Your task to perform on an android device: change alarm snooze length Image 0: 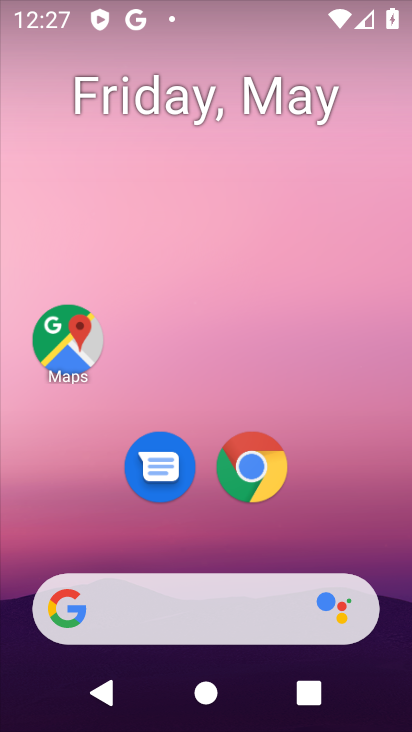
Step 0: drag from (347, 543) to (276, 10)
Your task to perform on an android device: change alarm snooze length Image 1: 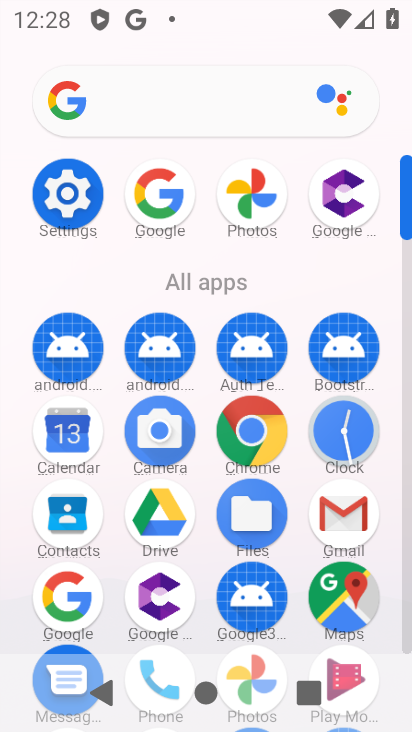
Step 1: click (343, 431)
Your task to perform on an android device: change alarm snooze length Image 2: 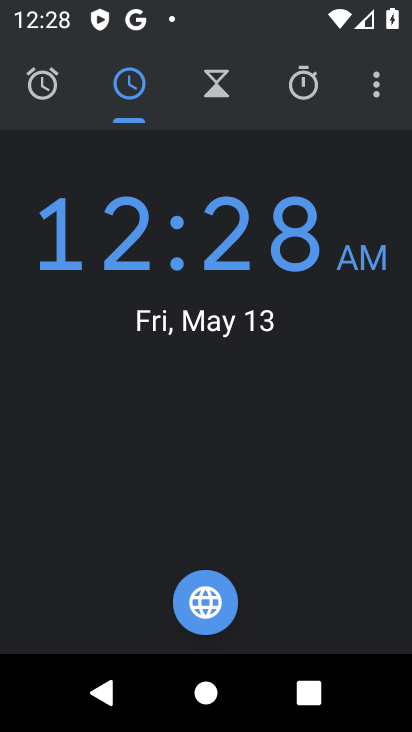
Step 2: click (376, 85)
Your task to perform on an android device: change alarm snooze length Image 3: 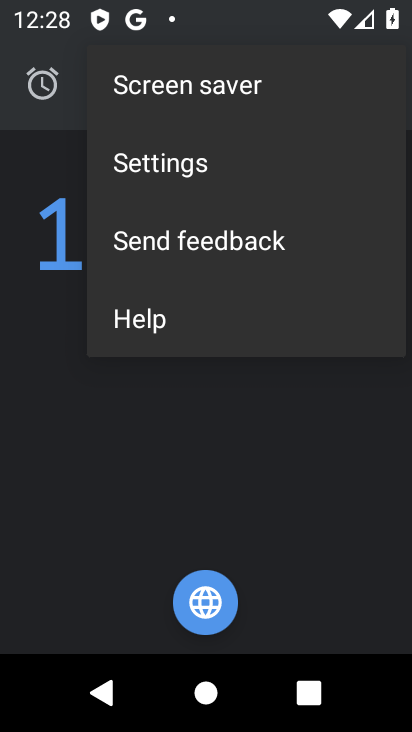
Step 3: click (180, 169)
Your task to perform on an android device: change alarm snooze length Image 4: 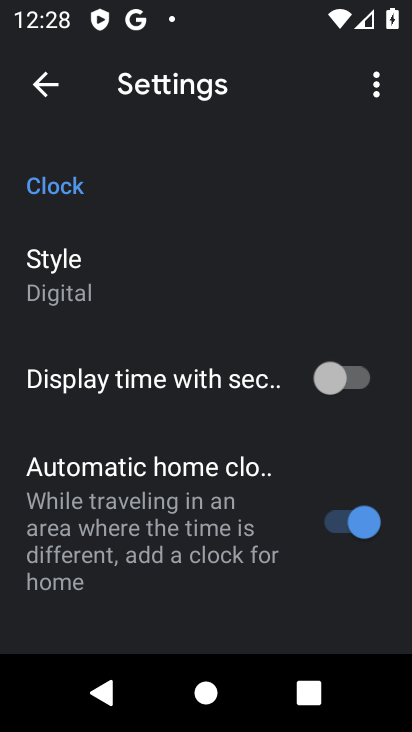
Step 4: drag from (208, 335) to (197, 234)
Your task to perform on an android device: change alarm snooze length Image 5: 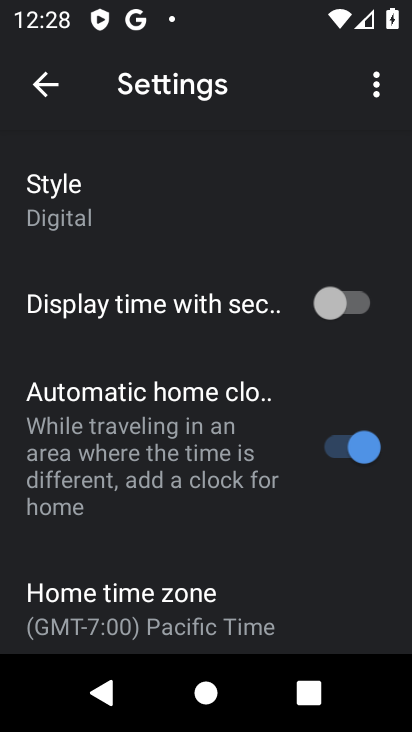
Step 5: drag from (152, 498) to (210, 342)
Your task to perform on an android device: change alarm snooze length Image 6: 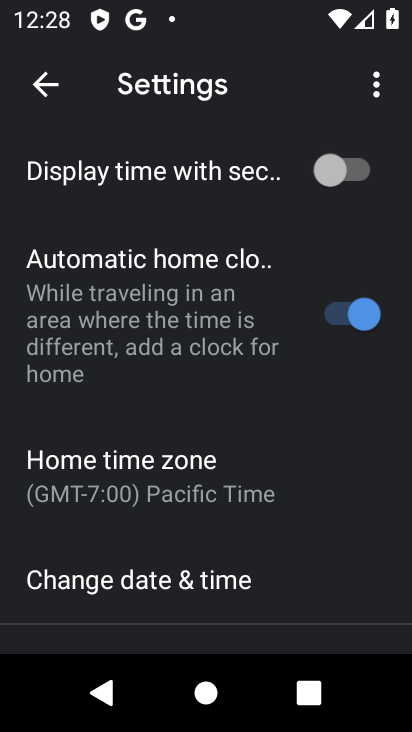
Step 6: drag from (117, 599) to (139, 419)
Your task to perform on an android device: change alarm snooze length Image 7: 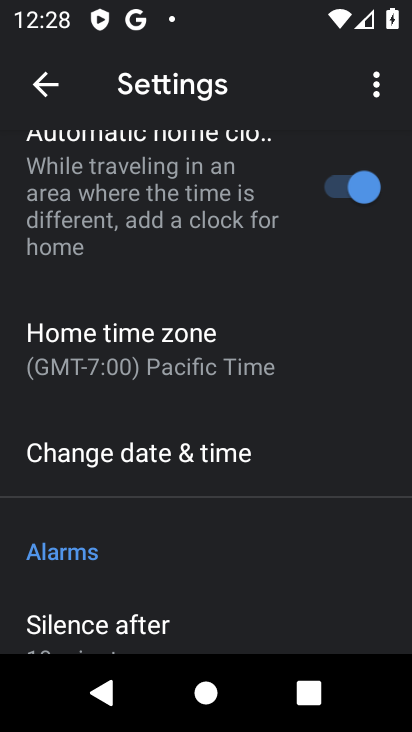
Step 7: drag from (133, 580) to (195, 404)
Your task to perform on an android device: change alarm snooze length Image 8: 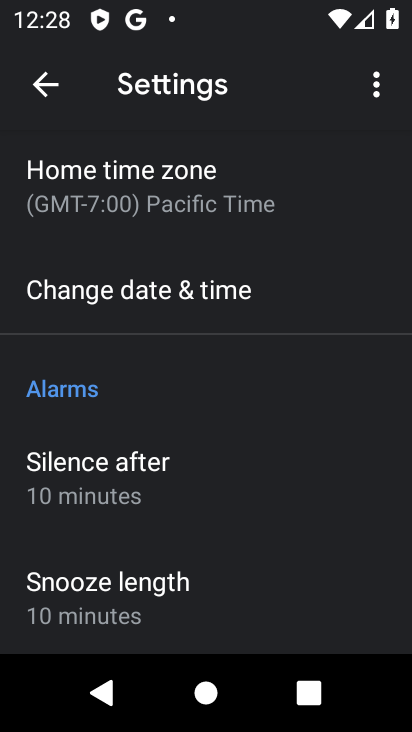
Step 8: drag from (149, 537) to (199, 430)
Your task to perform on an android device: change alarm snooze length Image 9: 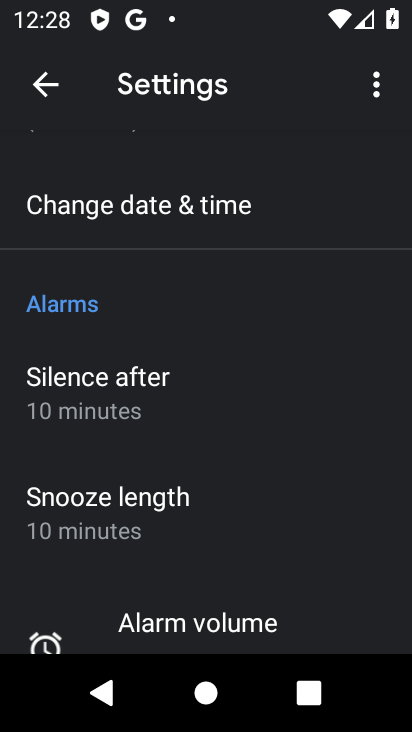
Step 9: click (132, 511)
Your task to perform on an android device: change alarm snooze length Image 10: 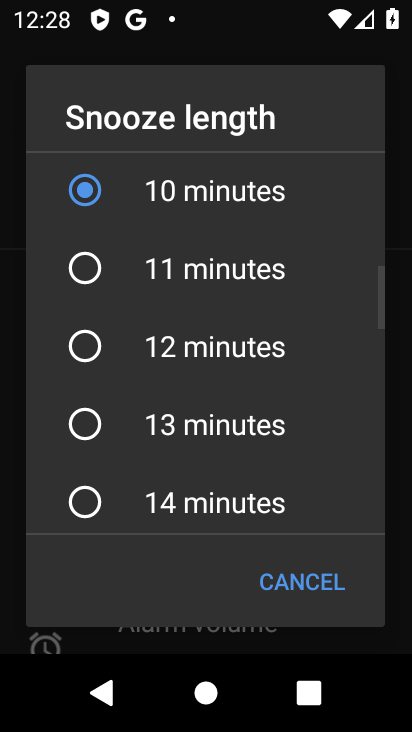
Step 10: click (94, 421)
Your task to perform on an android device: change alarm snooze length Image 11: 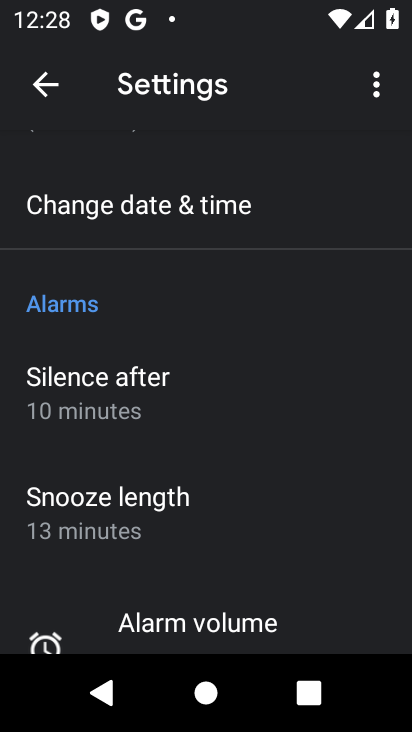
Step 11: task complete